Your task to perform on an android device: check storage Image 0: 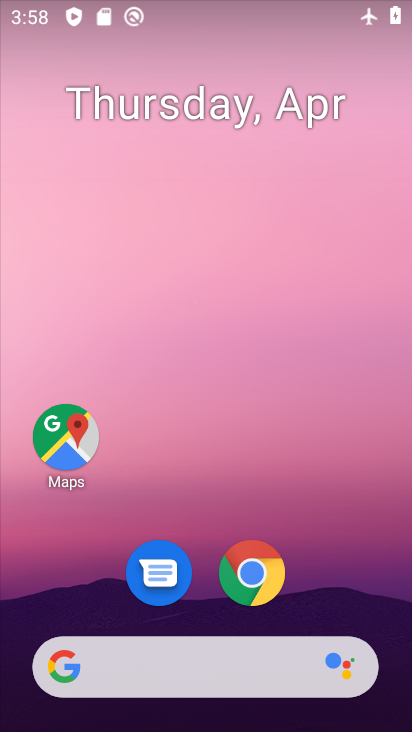
Step 0: drag from (326, 610) to (286, 68)
Your task to perform on an android device: check storage Image 1: 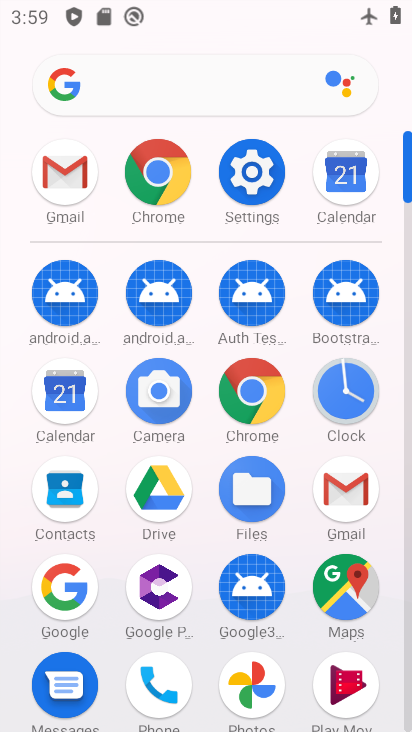
Step 1: click (245, 193)
Your task to perform on an android device: check storage Image 2: 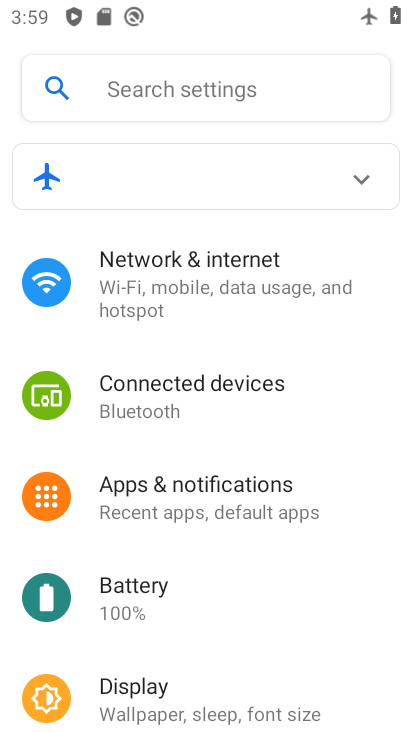
Step 2: drag from (180, 621) to (252, 71)
Your task to perform on an android device: check storage Image 3: 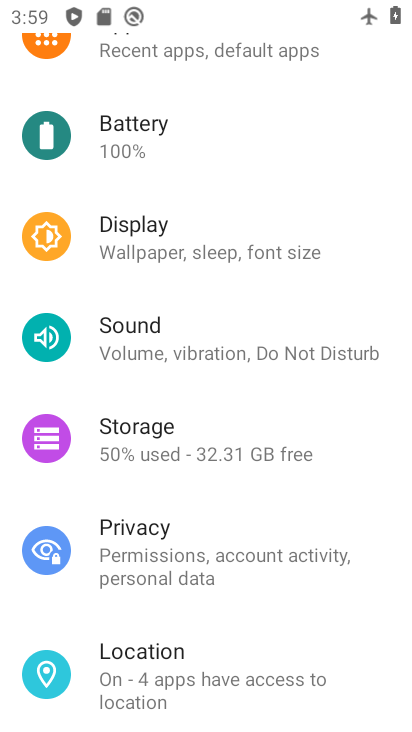
Step 3: drag from (187, 675) to (264, 352)
Your task to perform on an android device: check storage Image 4: 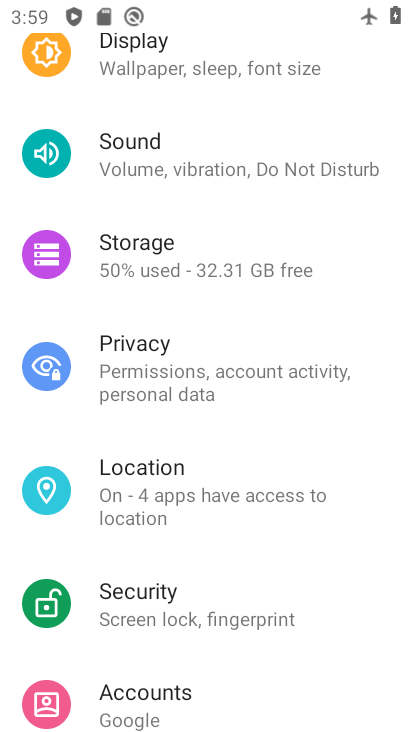
Step 4: click (157, 284)
Your task to perform on an android device: check storage Image 5: 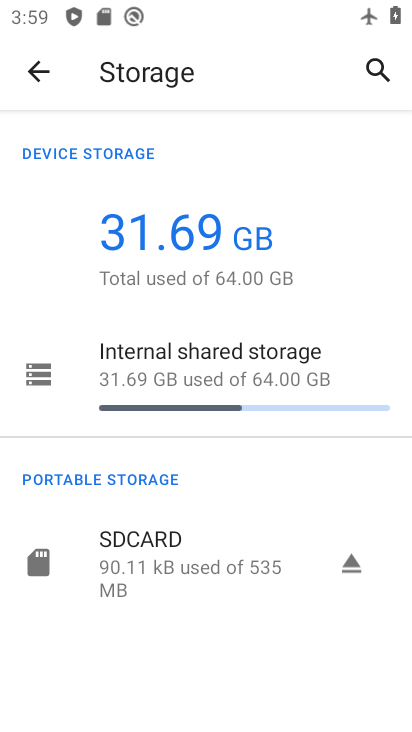
Step 5: click (171, 280)
Your task to perform on an android device: check storage Image 6: 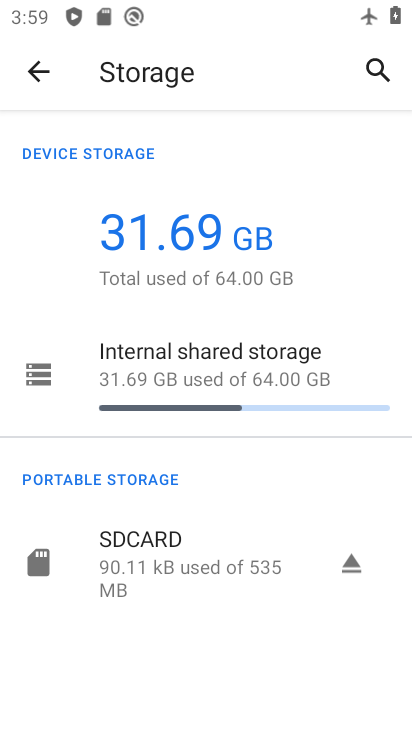
Step 6: click (225, 353)
Your task to perform on an android device: check storage Image 7: 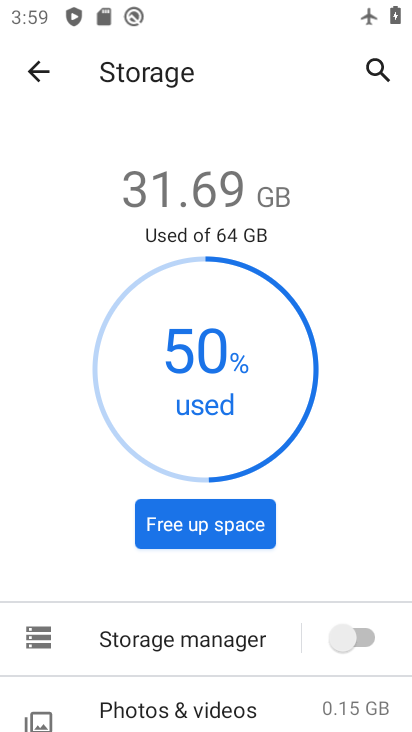
Step 7: click (220, 333)
Your task to perform on an android device: check storage Image 8: 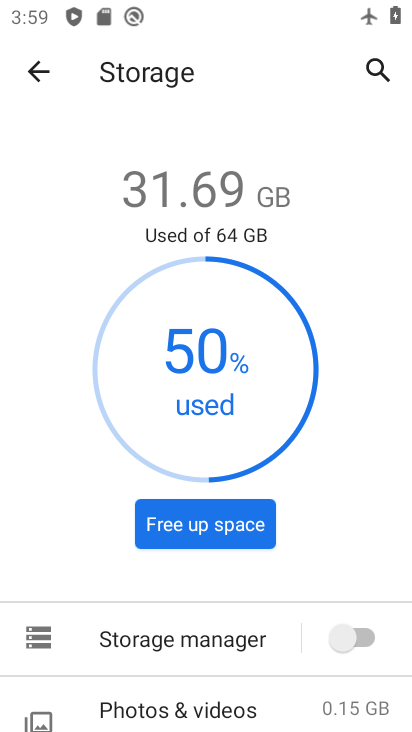
Step 8: click (228, 215)
Your task to perform on an android device: check storage Image 9: 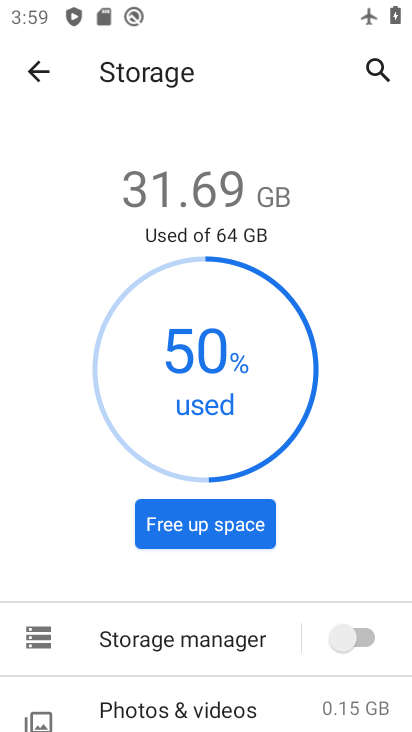
Step 9: task complete